Your task to perform on an android device: Go to Google maps Image 0: 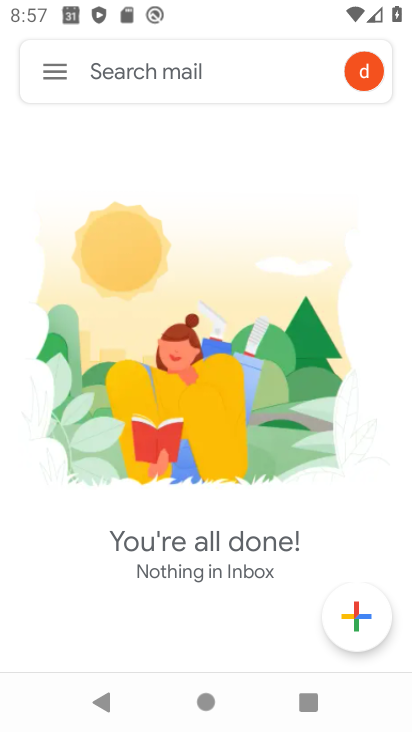
Step 0: press home button
Your task to perform on an android device: Go to Google maps Image 1: 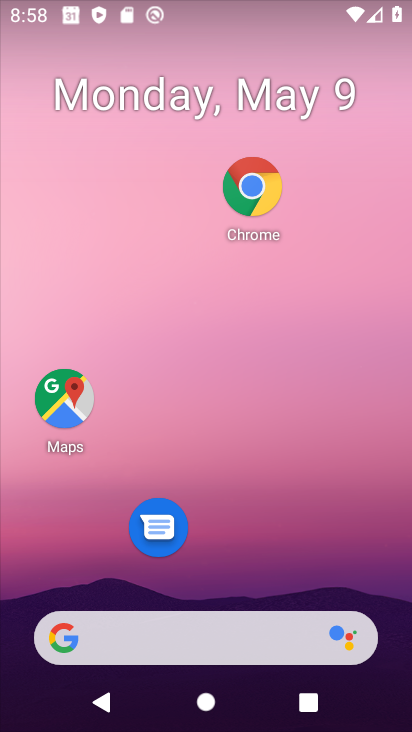
Step 1: drag from (206, 583) to (207, 23)
Your task to perform on an android device: Go to Google maps Image 2: 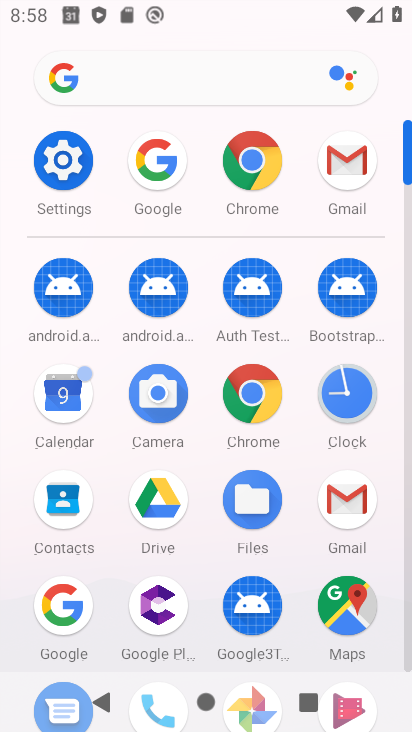
Step 2: click (350, 598)
Your task to perform on an android device: Go to Google maps Image 3: 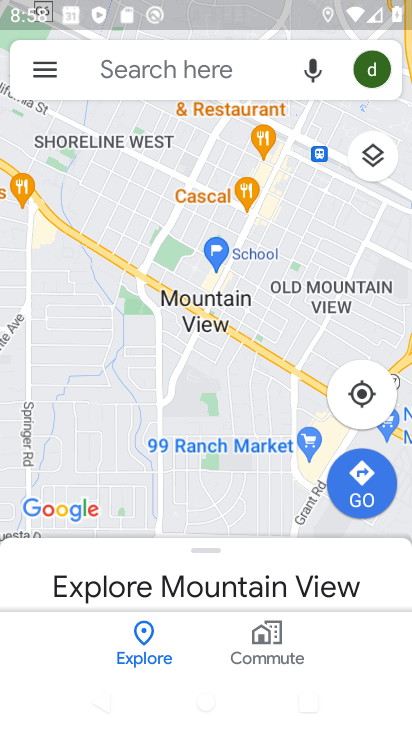
Step 3: task complete